Your task to perform on an android device: Open calendar and show me the third week of next month Image 0: 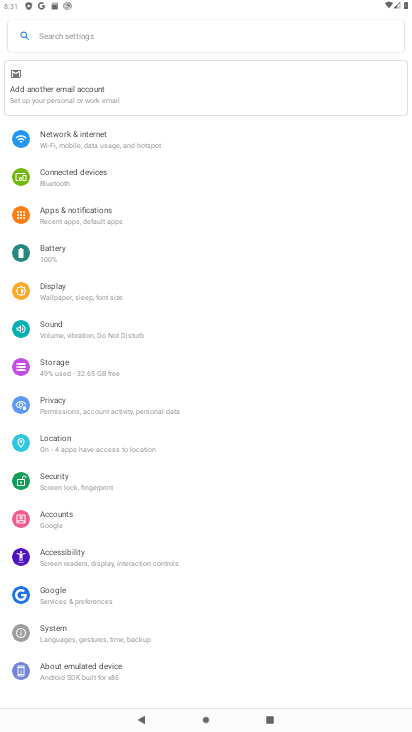
Step 0: press home button
Your task to perform on an android device: Open calendar and show me the third week of next month Image 1: 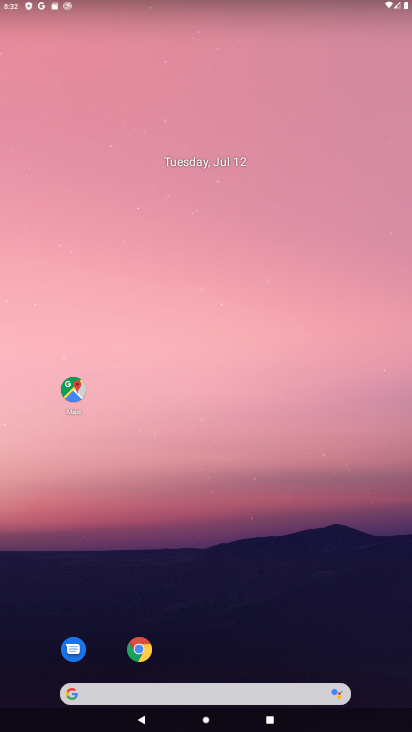
Step 1: drag from (319, 599) to (319, 180)
Your task to perform on an android device: Open calendar and show me the third week of next month Image 2: 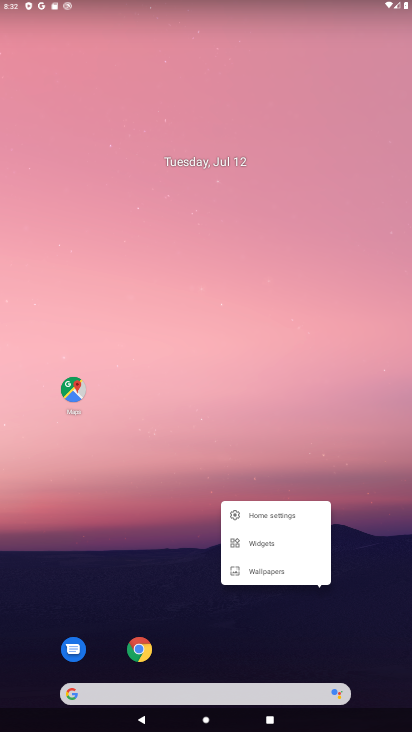
Step 2: click (197, 438)
Your task to perform on an android device: Open calendar and show me the third week of next month Image 3: 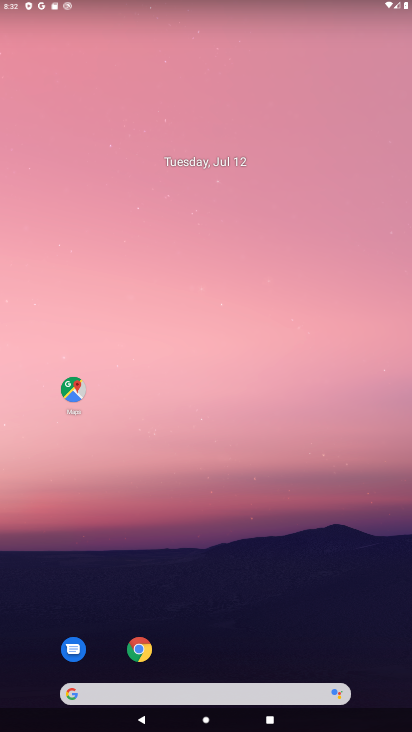
Step 3: drag from (257, 623) to (273, 202)
Your task to perform on an android device: Open calendar and show me the third week of next month Image 4: 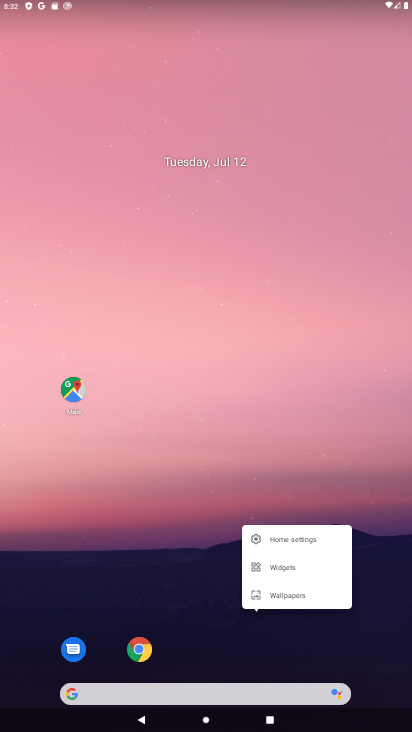
Step 4: click (204, 384)
Your task to perform on an android device: Open calendar and show me the third week of next month Image 5: 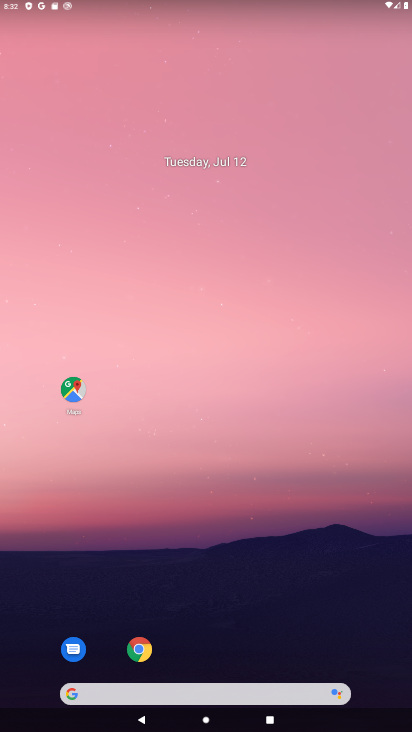
Step 5: drag from (211, 650) to (217, 139)
Your task to perform on an android device: Open calendar and show me the third week of next month Image 6: 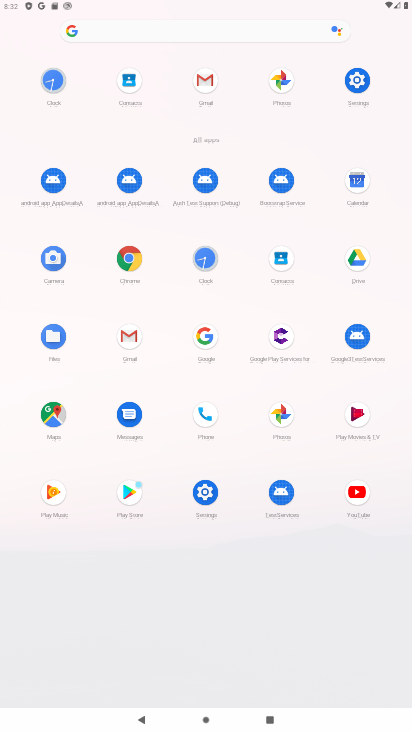
Step 6: click (350, 199)
Your task to perform on an android device: Open calendar and show me the third week of next month Image 7: 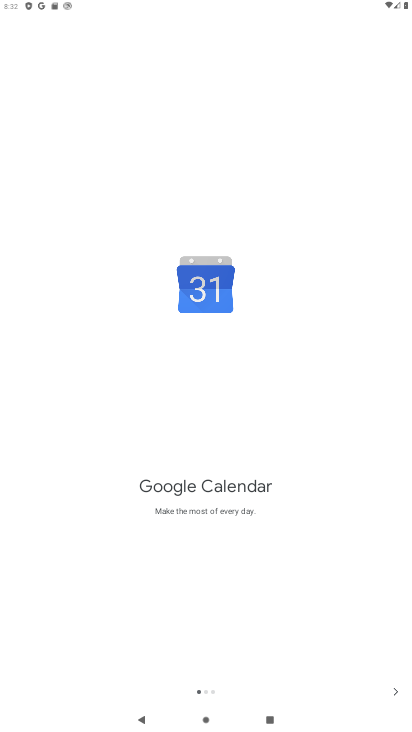
Step 7: click (392, 695)
Your task to perform on an android device: Open calendar and show me the third week of next month Image 8: 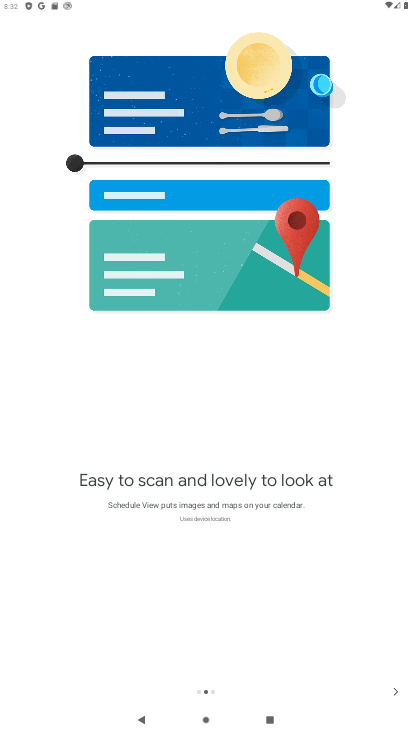
Step 8: click (392, 695)
Your task to perform on an android device: Open calendar and show me the third week of next month Image 9: 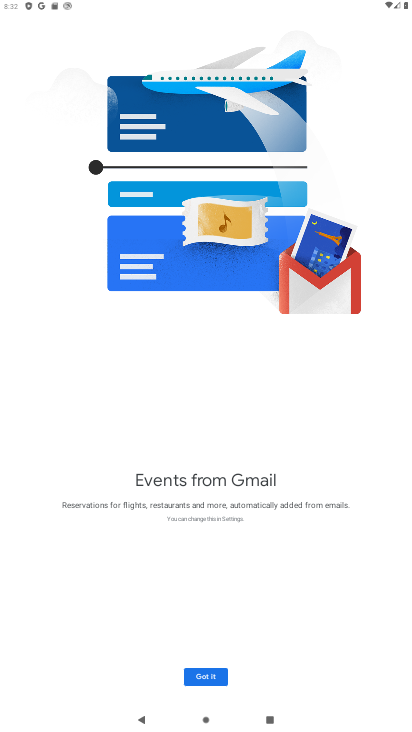
Step 9: click (392, 695)
Your task to perform on an android device: Open calendar and show me the third week of next month Image 10: 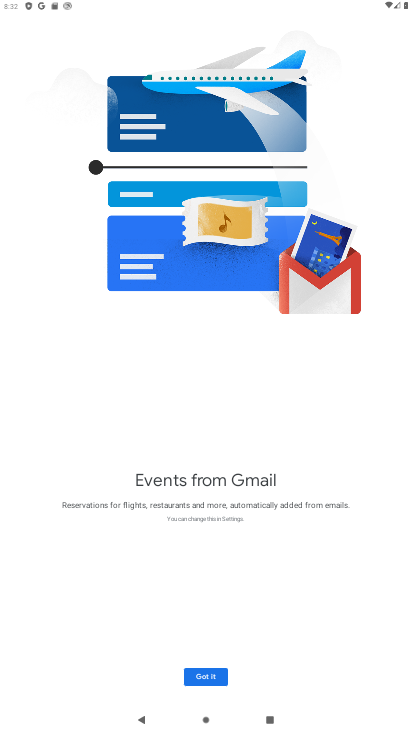
Step 10: click (214, 677)
Your task to perform on an android device: Open calendar and show me the third week of next month Image 11: 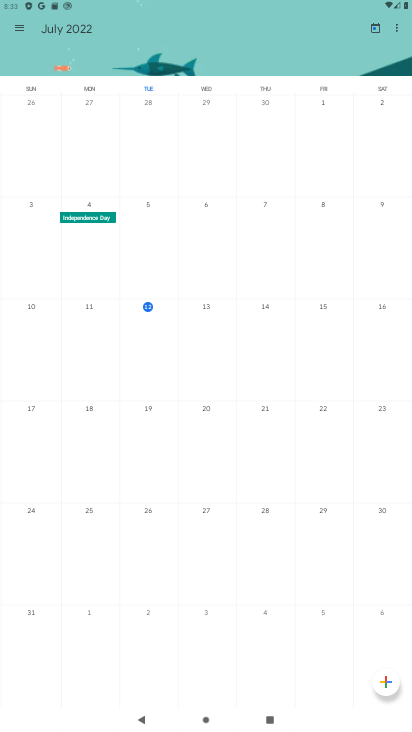
Step 11: click (88, 29)
Your task to perform on an android device: Open calendar and show me the third week of next month Image 12: 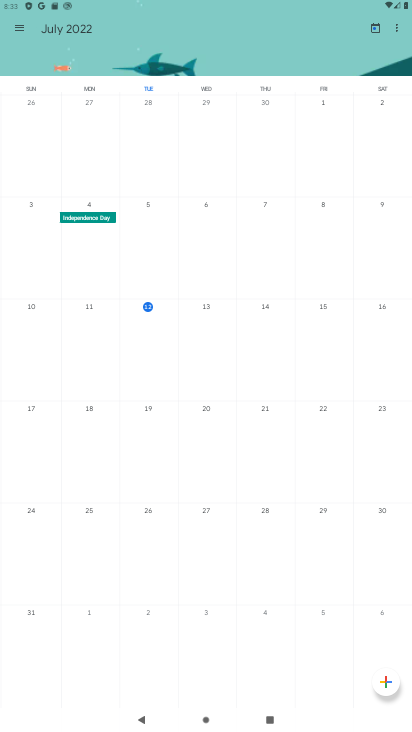
Step 12: task complete